Your task to perform on an android device: Go to calendar. Show me events next week Image 0: 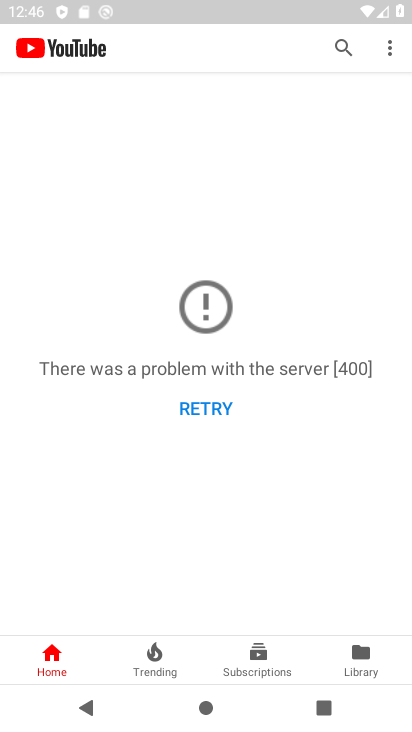
Step 0: press home button
Your task to perform on an android device: Go to calendar. Show me events next week Image 1: 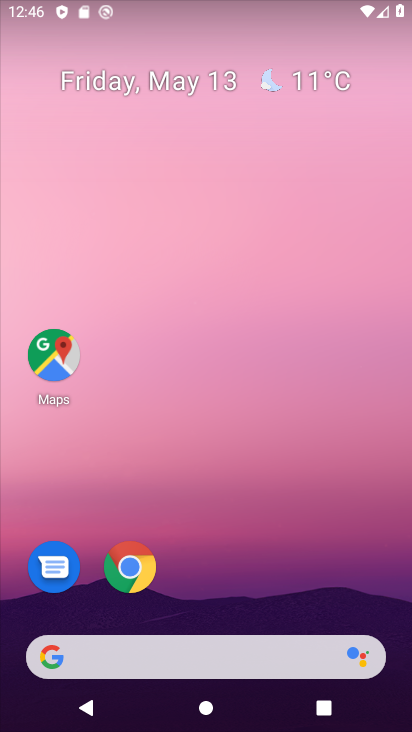
Step 1: drag from (193, 595) to (283, 188)
Your task to perform on an android device: Go to calendar. Show me events next week Image 2: 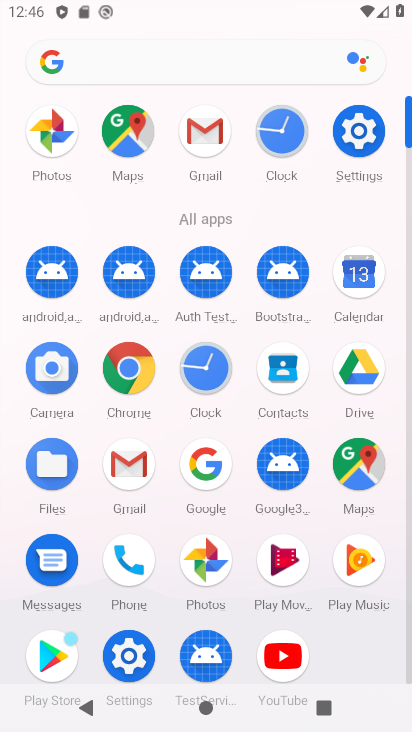
Step 2: click (359, 280)
Your task to perform on an android device: Go to calendar. Show me events next week Image 3: 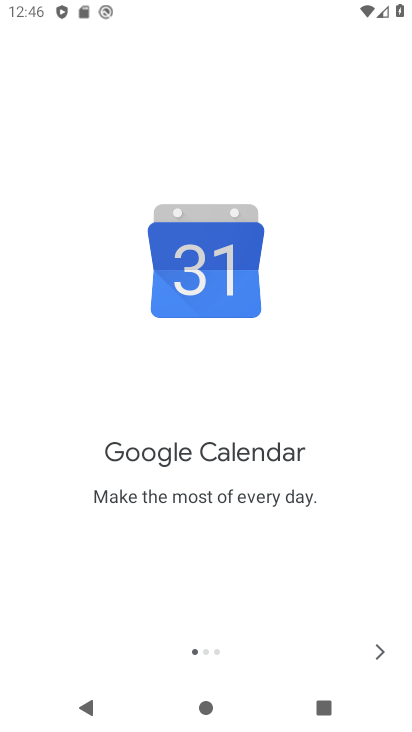
Step 3: click (369, 652)
Your task to perform on an android device: Go to calendar. Show me events next week Image 4: 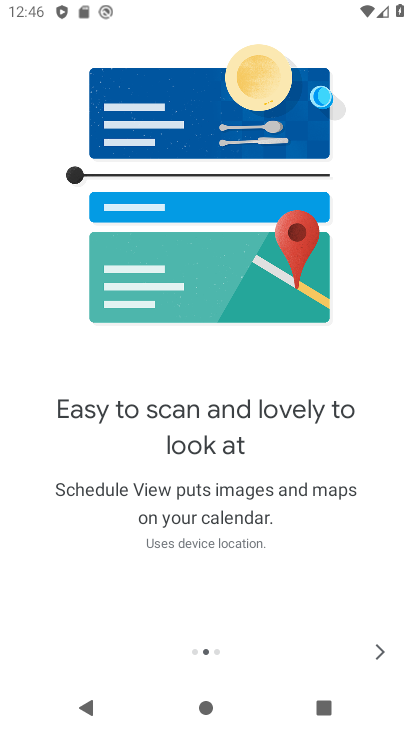
Step 4: click (369, 652)
Your task to perform on an android device: Go to calendar. Show me events next week Image 5: 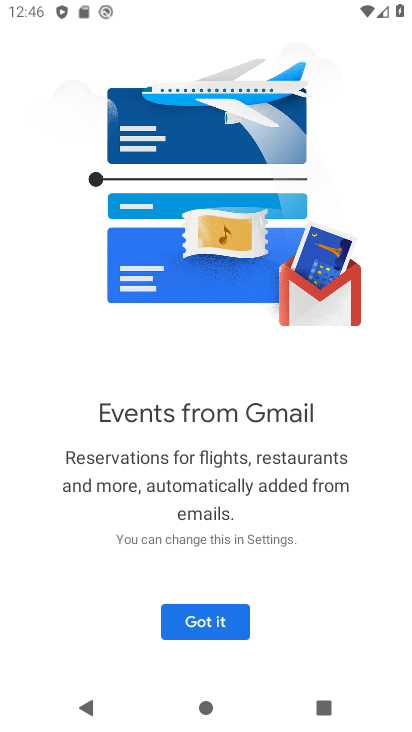
Step 5: click (223, 632)
Your task to perform on an android device: Go to calendar. Show me events next week Image 6: 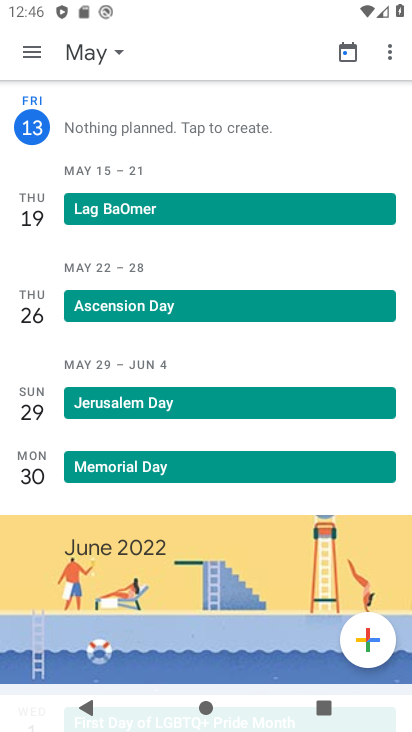
Step 6: click (47, 53)
Your task to perform on an android device: Go to calendar. Show me events next week Image 7: 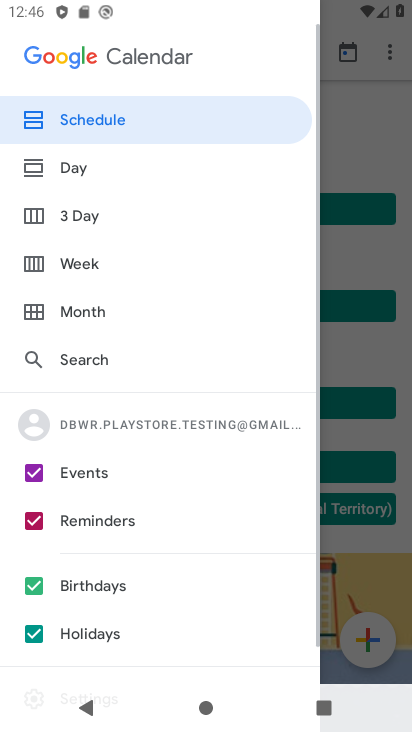
Step 7: click (140, 272)
Your task to perform on an android device: Go to calendar. Show me events next week Image 8: 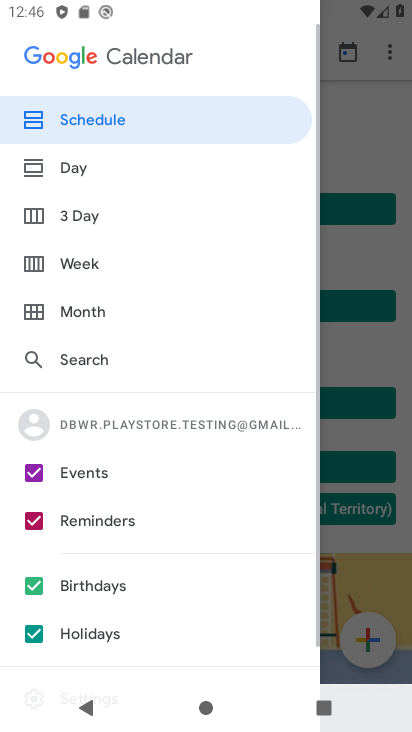
Step 8: click (111, 269)
Your task to perform on an android device: Go to calendar. Show me events next week Image 9: 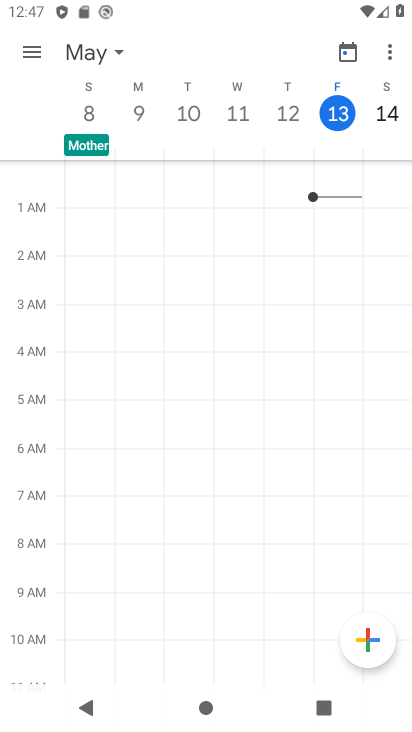
Step 9: task complete